Your task to perform on an android device: turn notification dots on Image 0: 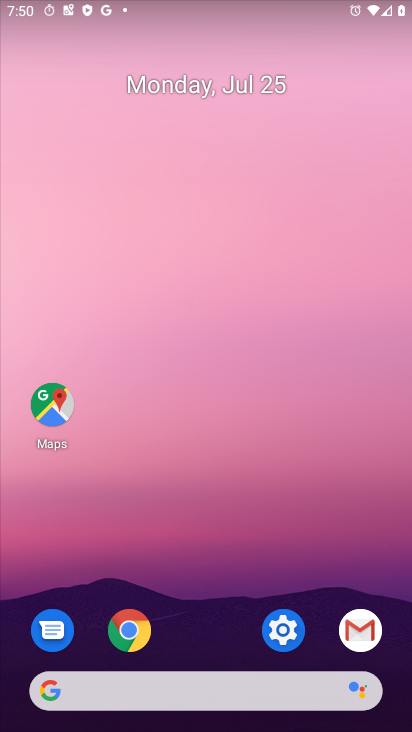
Step 0: click (295, 646)
Your task to perform on an android device: turn notification dots on Image 1: 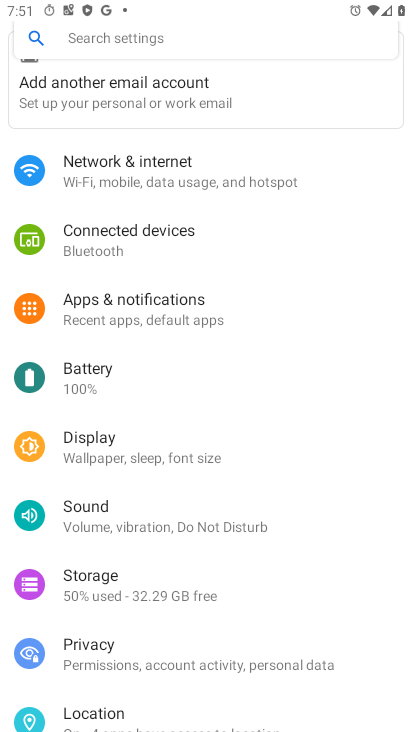
Step 1: click (126, 49)
Your task to perform on an android device: turn notification dots on Image 2: 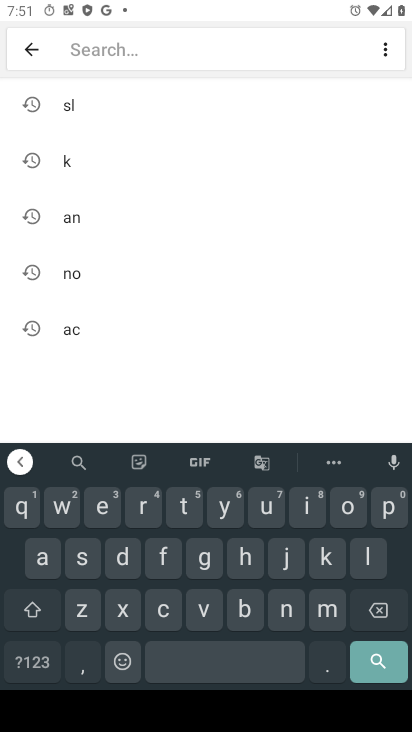
Step 2: click (290, 614)
Your task to perform on an android device: turn notification dots on Image 3: 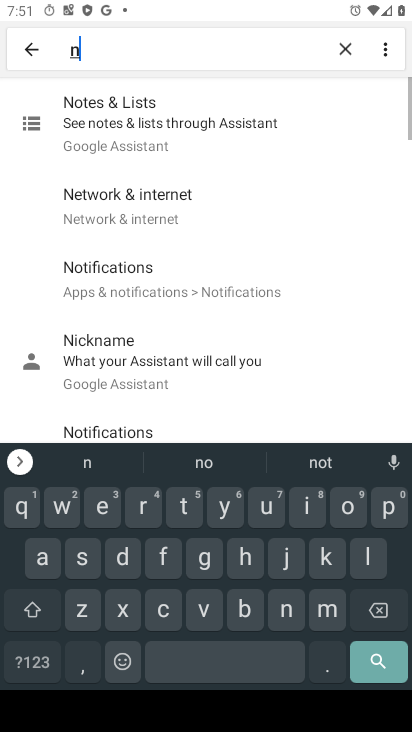
Step 3: click (347, 515)
Your task to perform on an android device: turn notification dots on Image 4: 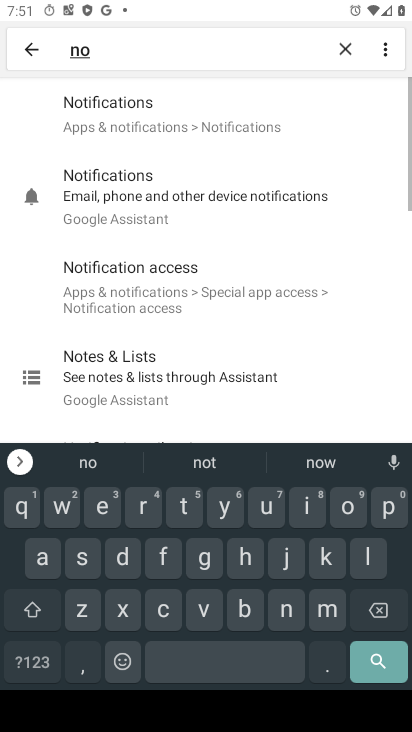
Step 4: click (135, 117)
Your task to perform on an android device: turn notification dots on Image 5: 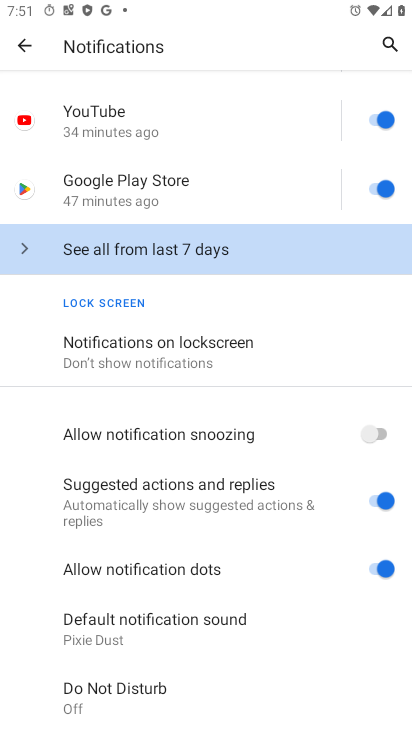
Step 5: click (264, 575)
Your task to perform on an android device: turn notification dots on Image 6: 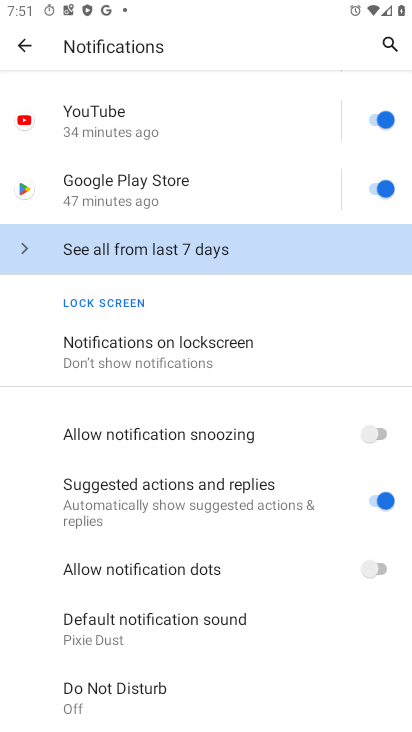
Step 6: click (264, 574)
Your task to perform on an android device: turn notification dots on Image 7: 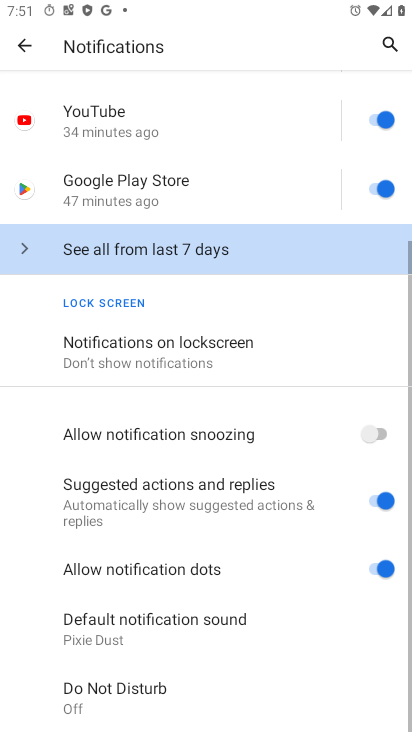
Step 7: click (158, 316)
Your task to perform on an android device: turn notification dots on Image 8: 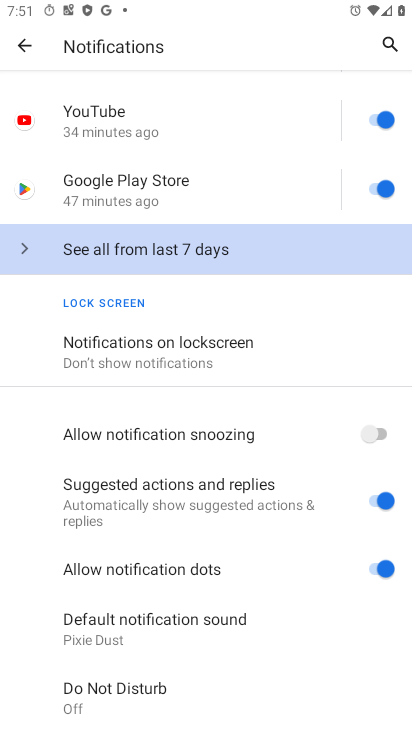
Step 8: task complete